Your task to perform on an android device: Go to battery settings Image 0: 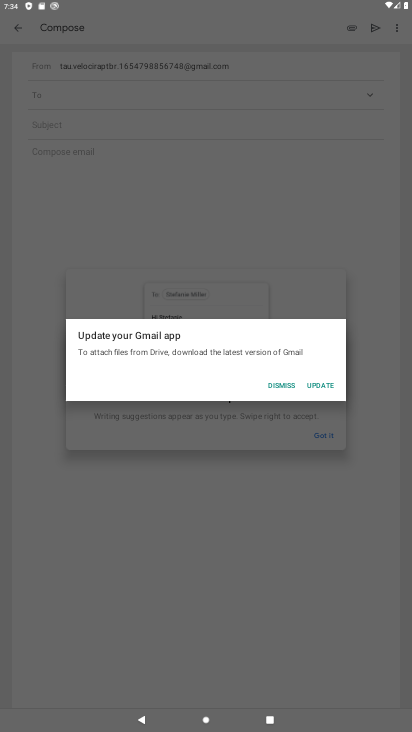
Step 0: press home button
Your task to perform on an android device: Go to battery settings Image 1: 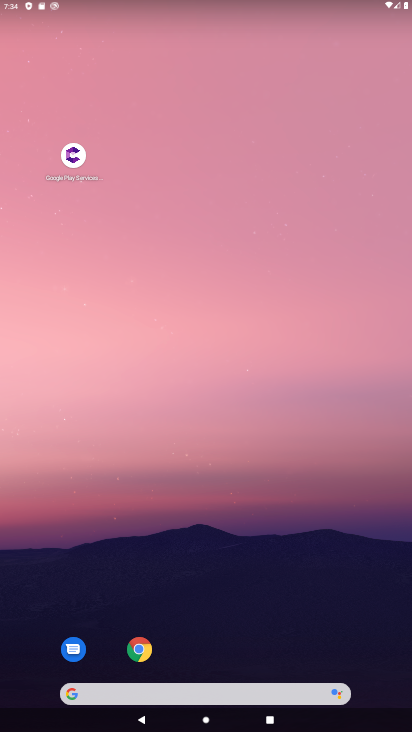
Step 1: drag from (250, 679) to (251, 250)
Your task to perform on an android device: Go to battery settings Image 2: 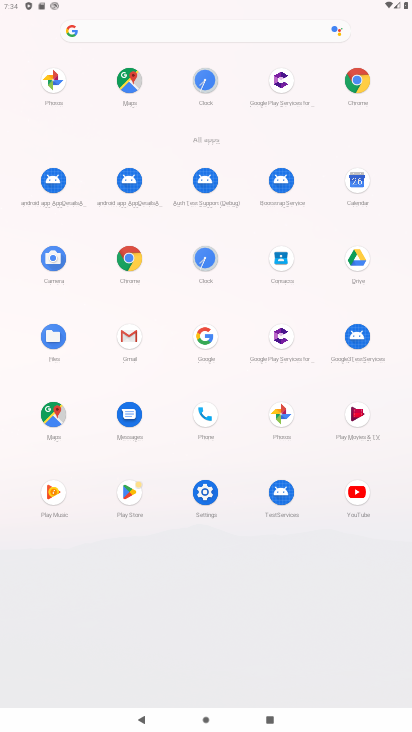
Step 2: click (197, 483)
Your task to perform on an android device: Go to battery settings Image 3: 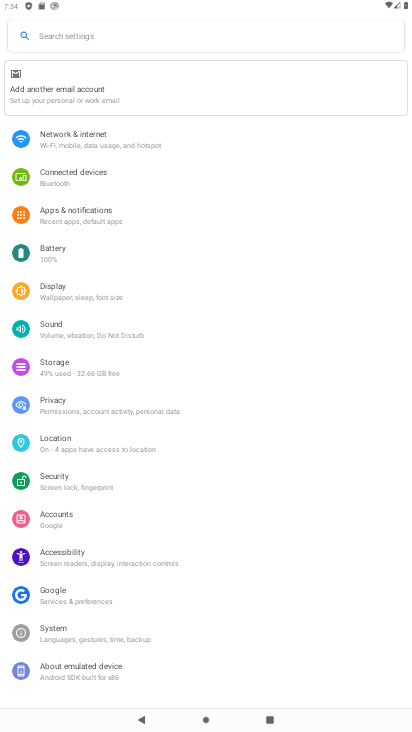
Step 3: click (61, 253)
Your task to perform on an android device: Go to battery settings Image 4: 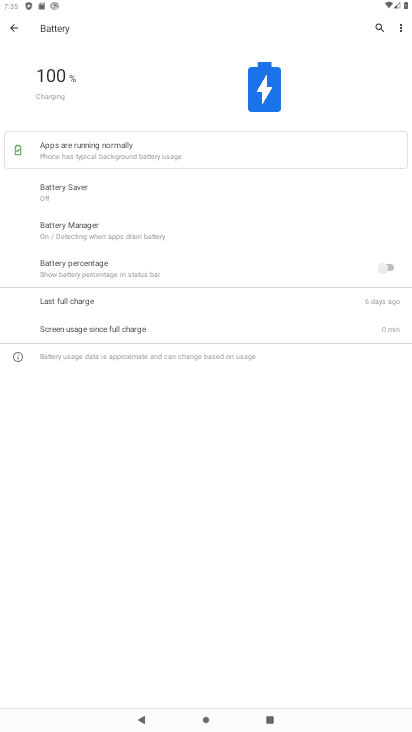
Step 4: task complete